Your task to perform on an android device: toggle javascript in the chrome app Image 0: 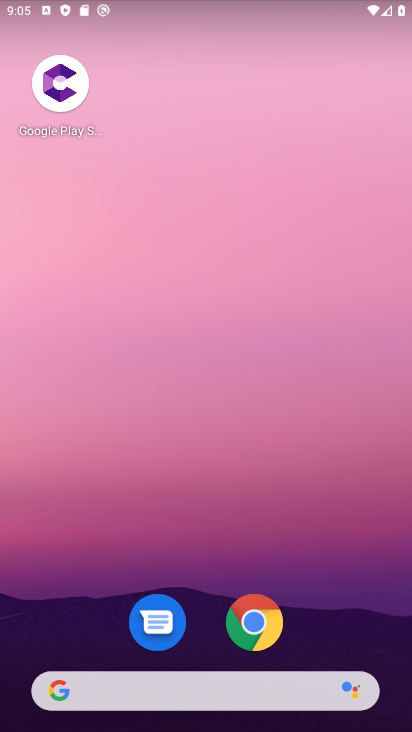
Step 0: press home button
Your task to perform on an android device: toggle javascript in the chrome app Image 1: 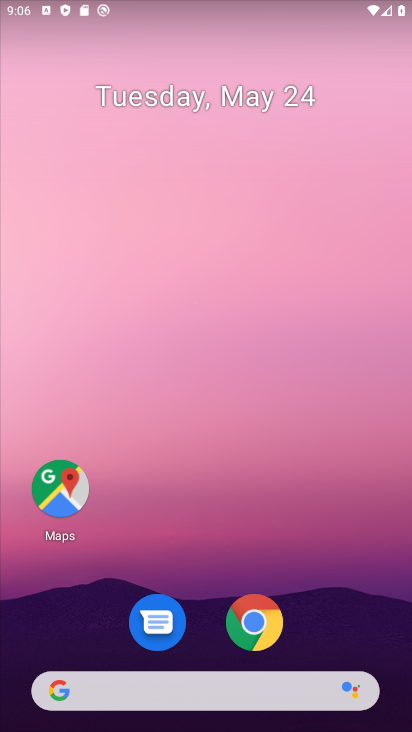
Step 1: drag from (223, 701) to (223, 13)
Your task to perform on an android device: toggle javascript in the chrome app Image 2: 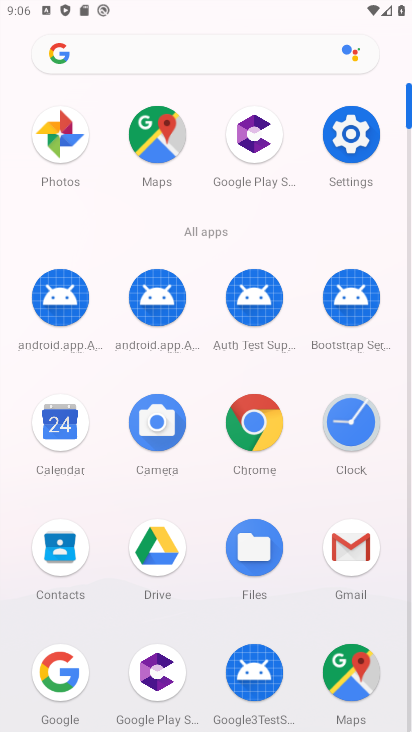
Step 2: click (254, 408)
Your task to perform on an android device: toggle javascript in the chrome app Image 3: 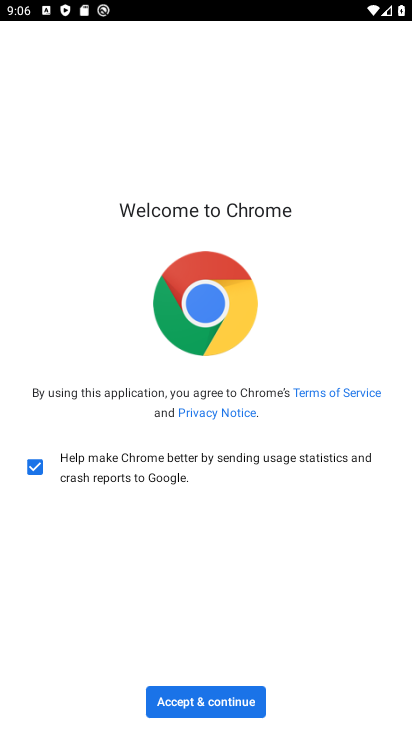
Step 3: click (205, 696)
Your task to perform on an android device: toggle javascript in the chrome app Image 4: 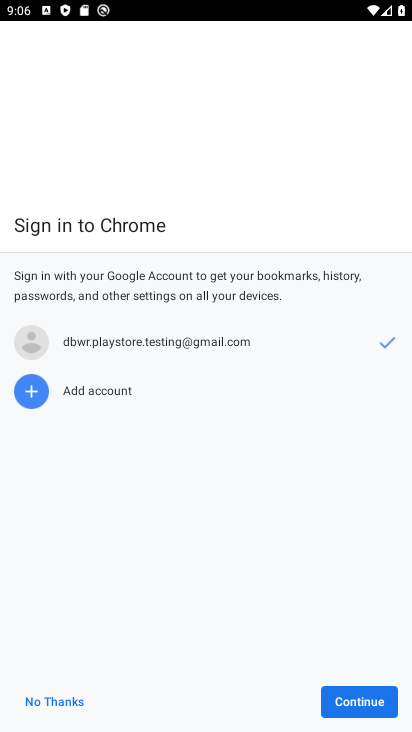
Step 4: click (357, 704)
Your task to perform on an android device: toggle javascript in the chrome app Image 5: 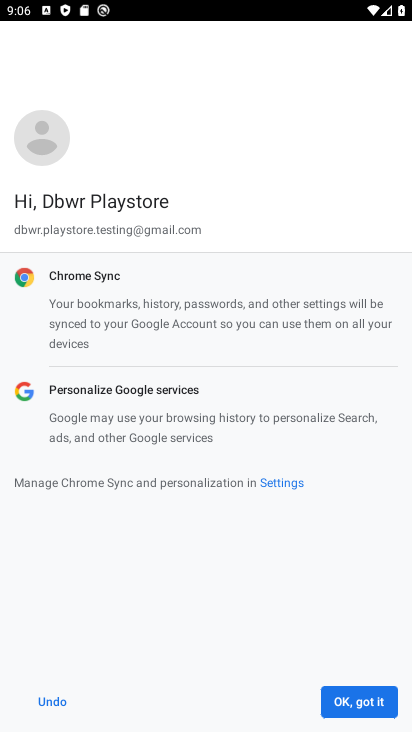
Step 5: click (357, 704)
Your task to perform on an android device: toggle javascript in the chrome app Image 6: 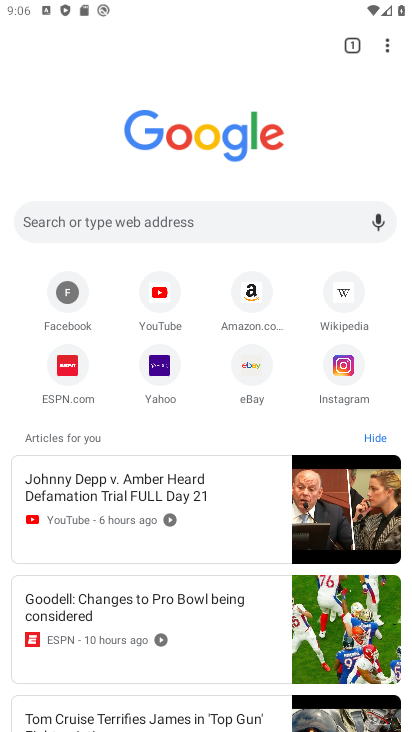
Step 6: click (385, 49)
Your task to perform on an android device: toggle javascript in the chrome app Image 7: 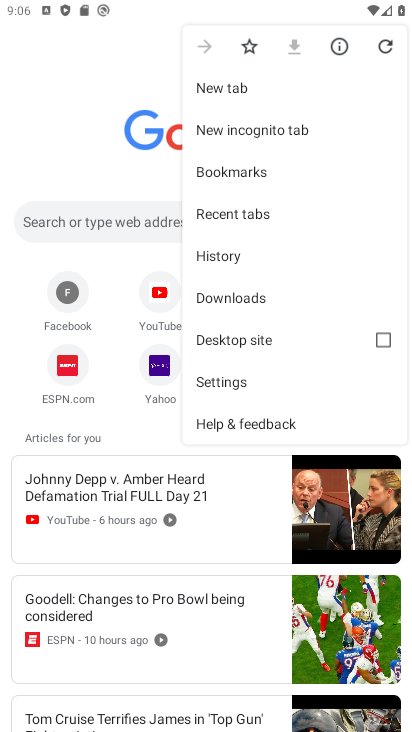
Step 7: click (221, 380)
Your task to perform on an android device: toggle javascript in the chrome app Image 8: 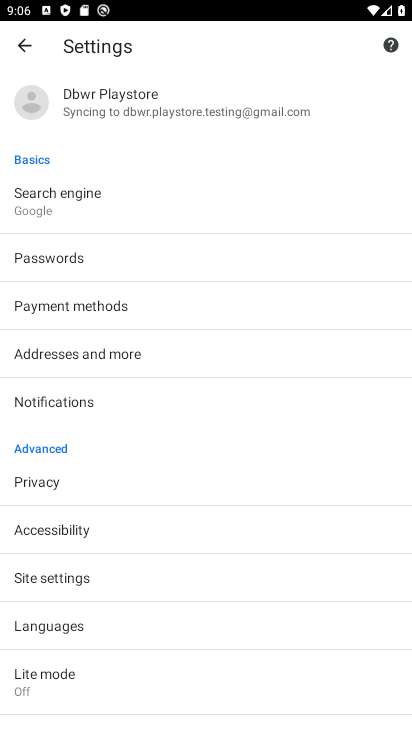
Step 8: click (65, 576)
Your task to perform on an android device: toggle javascript in the chrome app Image 9: 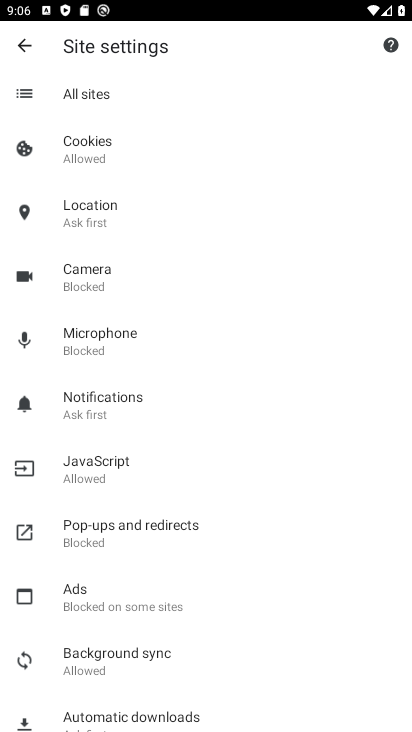
Step 9: click (97, 460)
Your task to perform on an android device: toggle javascript in the chrome app Image 10: 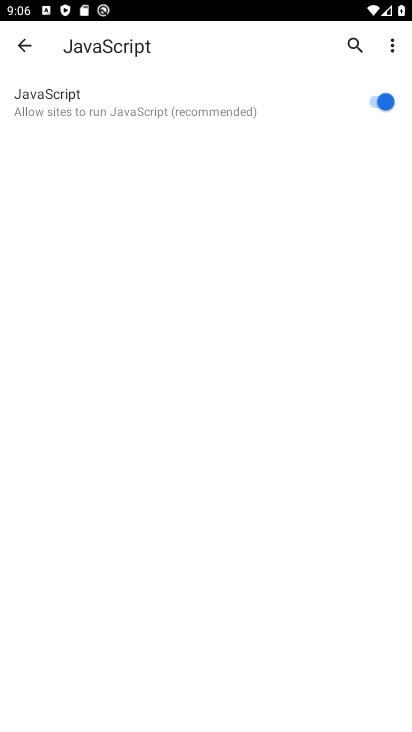
Step 10: task complete